Your task to perform on an android device: change notifications settings Image 0: 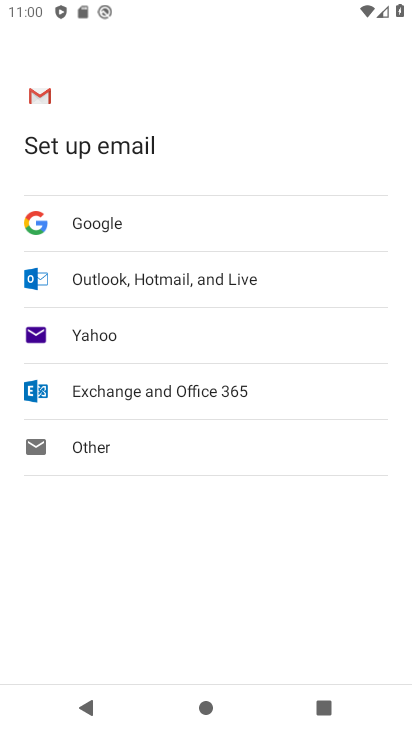
Step 0: press home button
Your task to perform on an android device: change notifications settings Image 1: 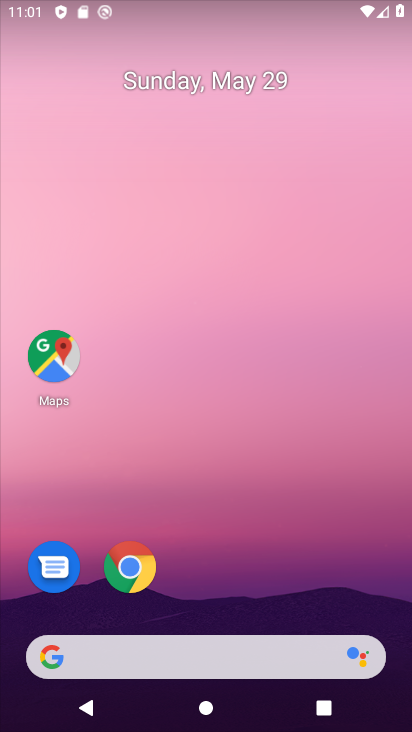
Step 1: drag from (181, 634) to (184, 62)
Your task to perform on an android device: change notifications settings Image 2: 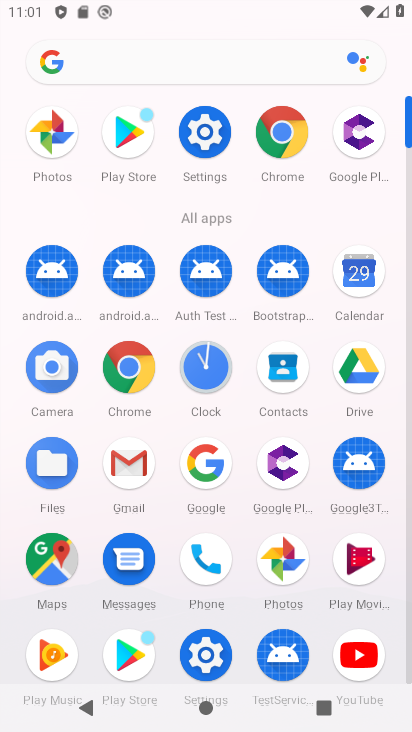
Step 2: click (202, 140)
Your task to perform on an android device: change notifications settings Image 3: 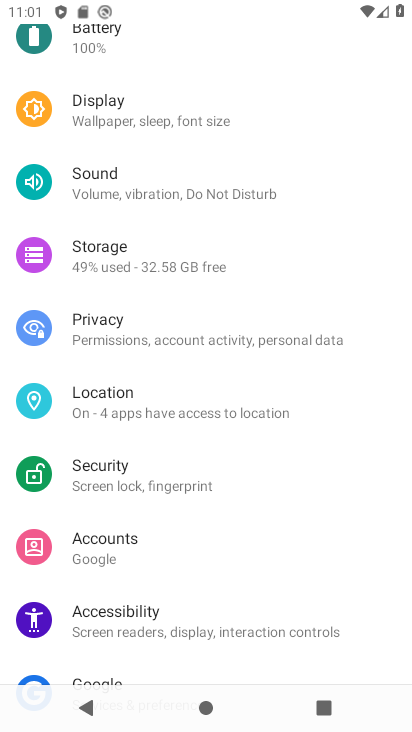
Step 3: drag from (246, 170) to (228, 564)
Your task to perform on an android device: change notifications settings Image 4: 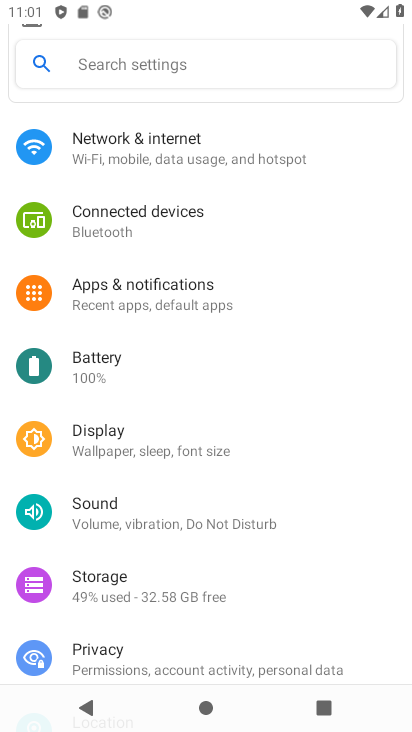
Step 4: click (118, 310)
Your task to perform on an android device: change notifications settings Image 5: 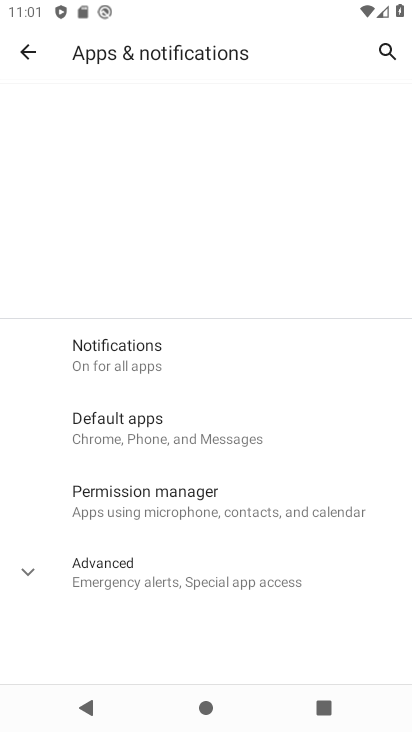
Step 5: click (191, 352)
Your task to perform on an android device: change notifications settings Image 6: 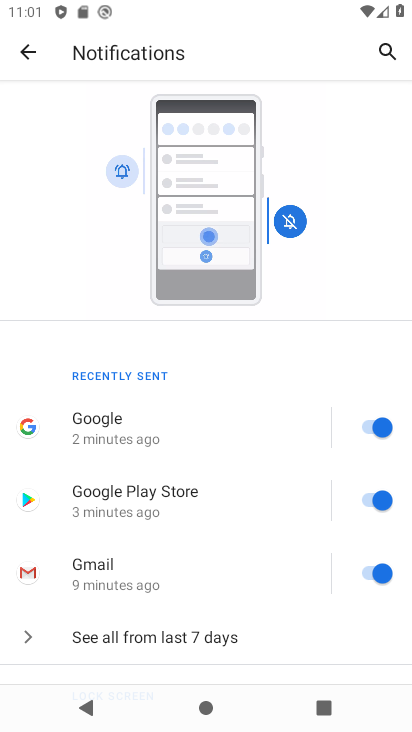
Step 6: click (187, 619)
Your task to perform on an android device: change notifications settings Image 7: 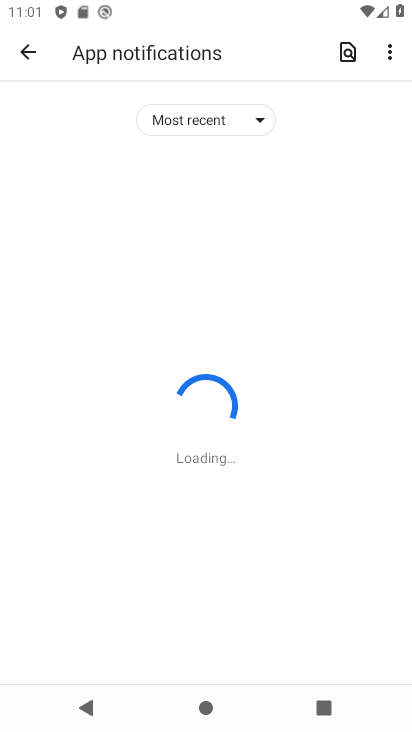
Step 7: click (206, 131)
Your task to perform on an android device: change notifications settings Image 8: 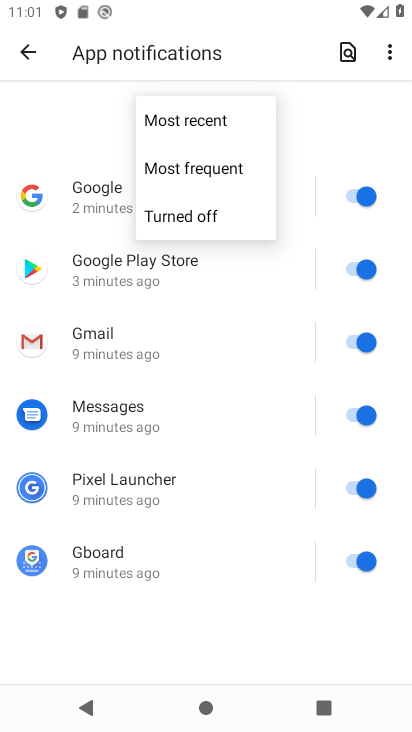
Step 8: click (185, 215)
Your task to perform on an android device: change notifications settings Image 9: 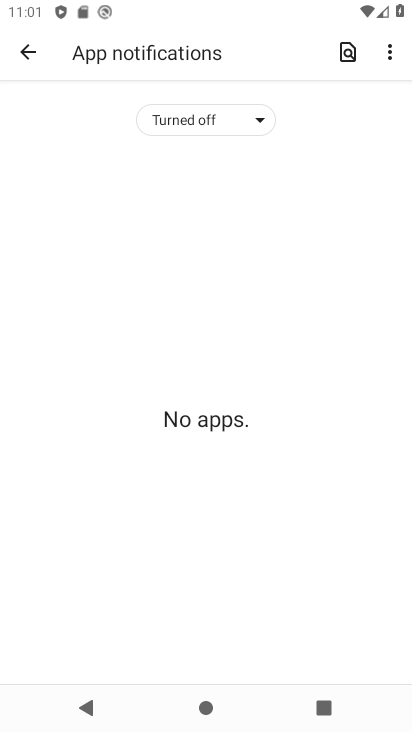
Step 9: task complete